Your task to perform on an android device: See recent photos Image 0: 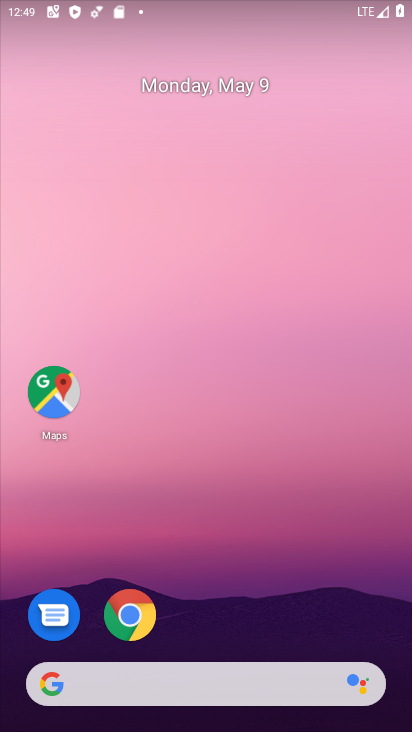
Step 0: drag from (380, 650) to (305, 78)
Your task to perform on an android device: See recent photos Image 1: 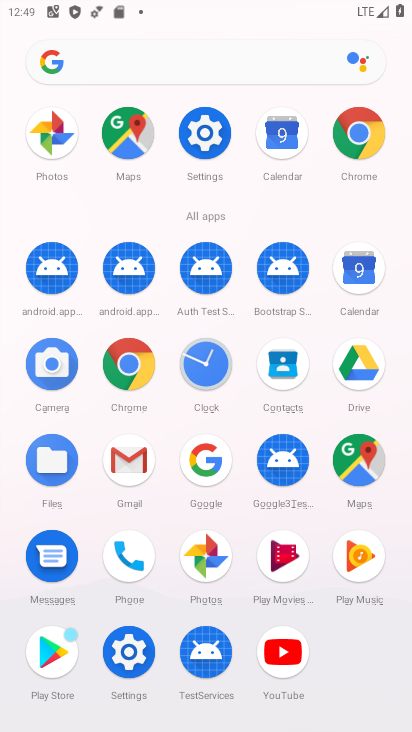
Step 1: click (204, 556)
Your task to perform on an android device: See recent photos Image 2: 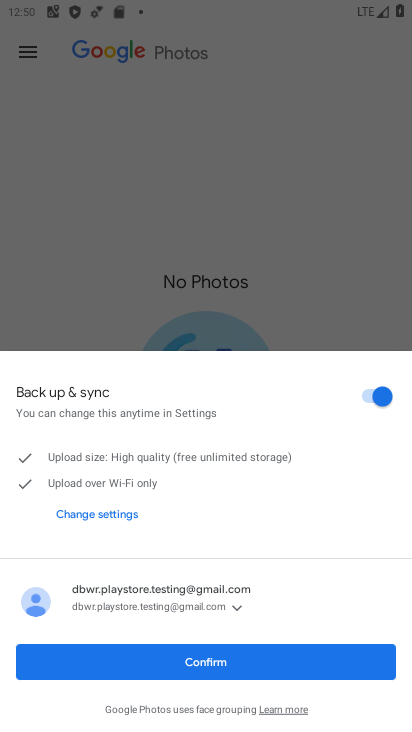
Step 2: click (179, 663)
Your task to perform on an android device: See recent photos Image 3: 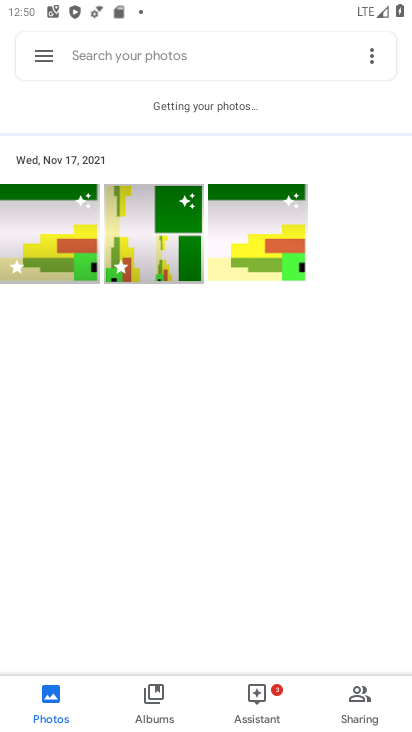
Step 3: task complete